Your task to perform on an android device: empty trash in the gmail app Image 0: 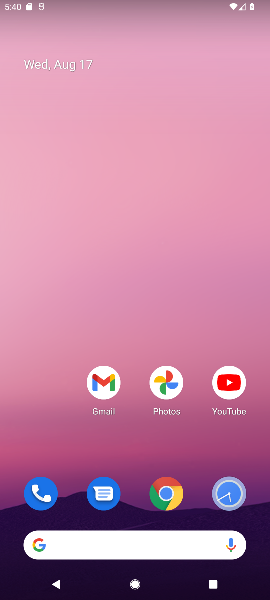
Step 0: press home button
Your task to perform on an android device: empty trash in the gmail app Image 1: 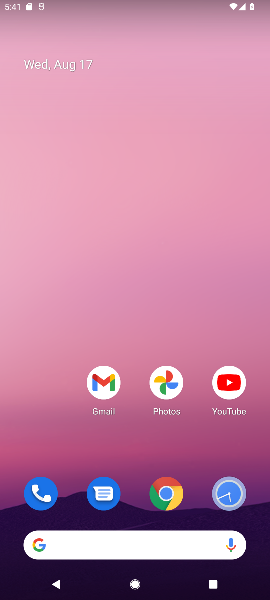
Step 1: click (104, 385)
Your task to perform on an android device: empty trash in the gmail app Image 2: 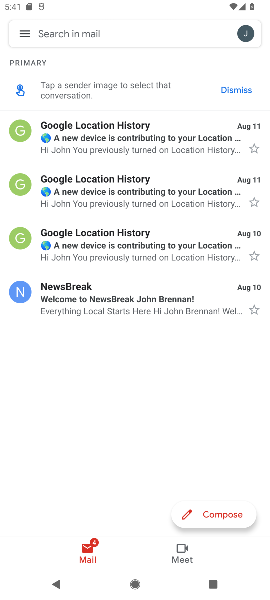
Step 2: click (20, 35)
Your task to perform on an android device: empty trash in the gmail app Image 3: 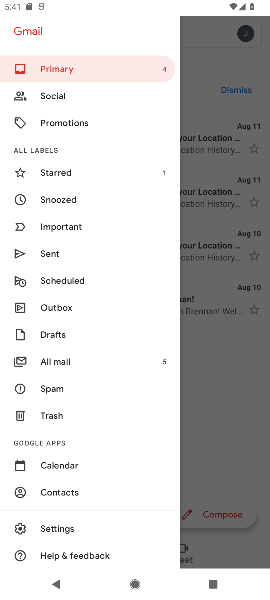
Step 3: click (45, 417)
Your task to perform on an android device: empty trash in the gmail app Image 4: 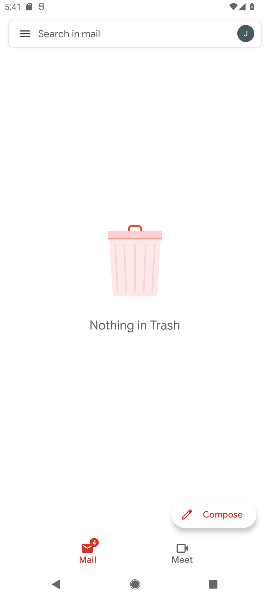
Step 4: click (45, 370)
Your task to perform on an android device: empty trash in the gmail app Image 5: 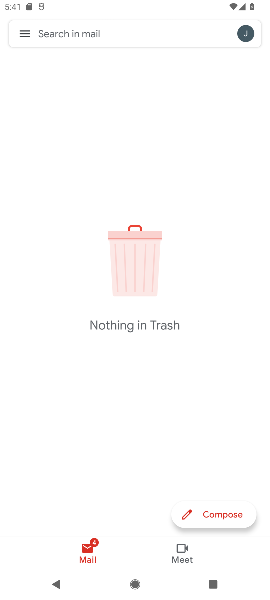
Step 5: task complete